Your task to perform on an android device: open app "YouTube Kids" (install if not already installed) and go to login screen Image 0: 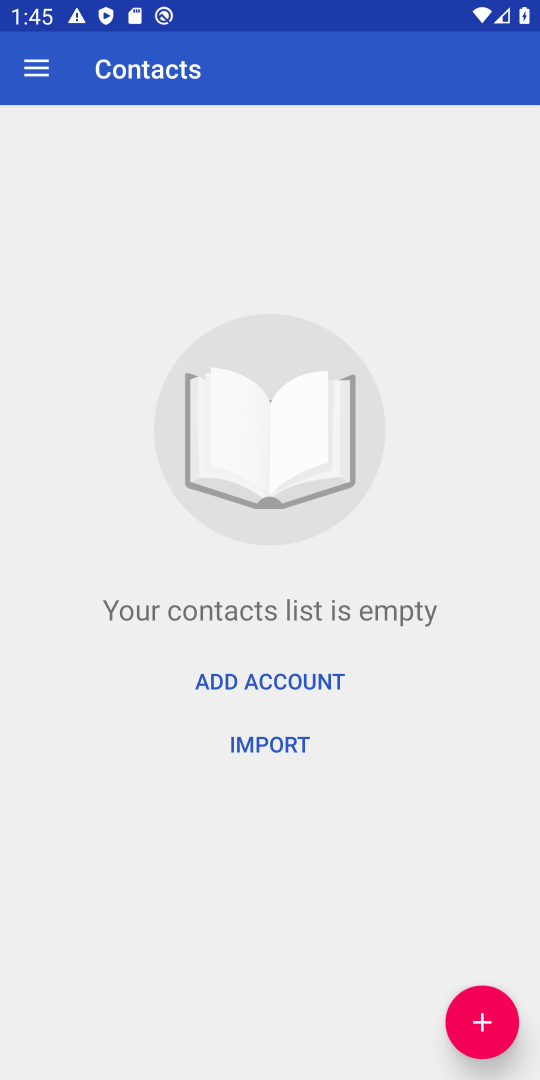
Step 0: press home button
Your task to perform on an android device: open app "YouTube Kids" (install if not already installed) and go to login screen Image 1: 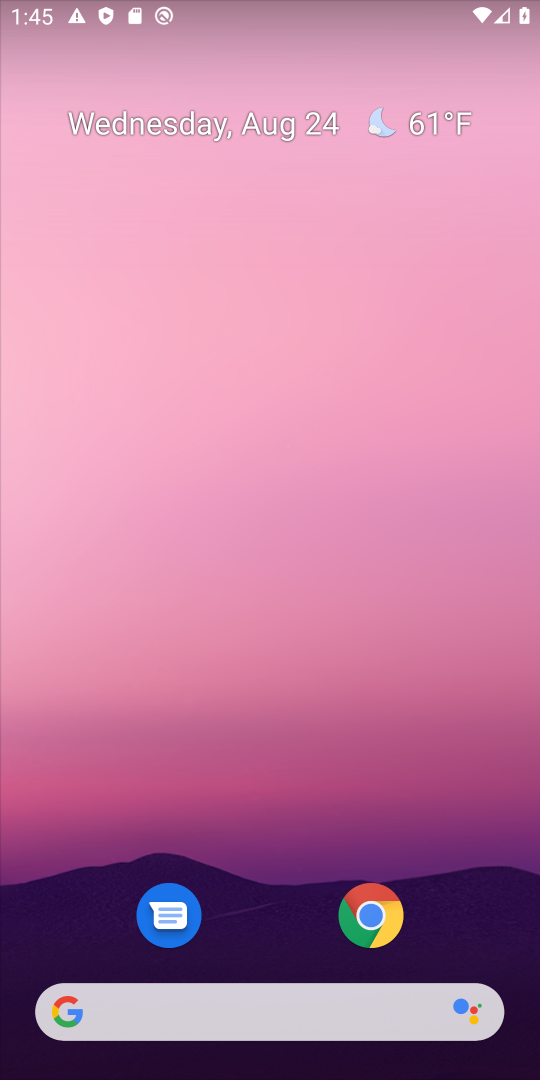
Step 1: drag from (239, 843) to (262, 263)
Your task to perform on an android device: open app "YouTube Kids" (install if not already installed) and go to login screen Image 2: 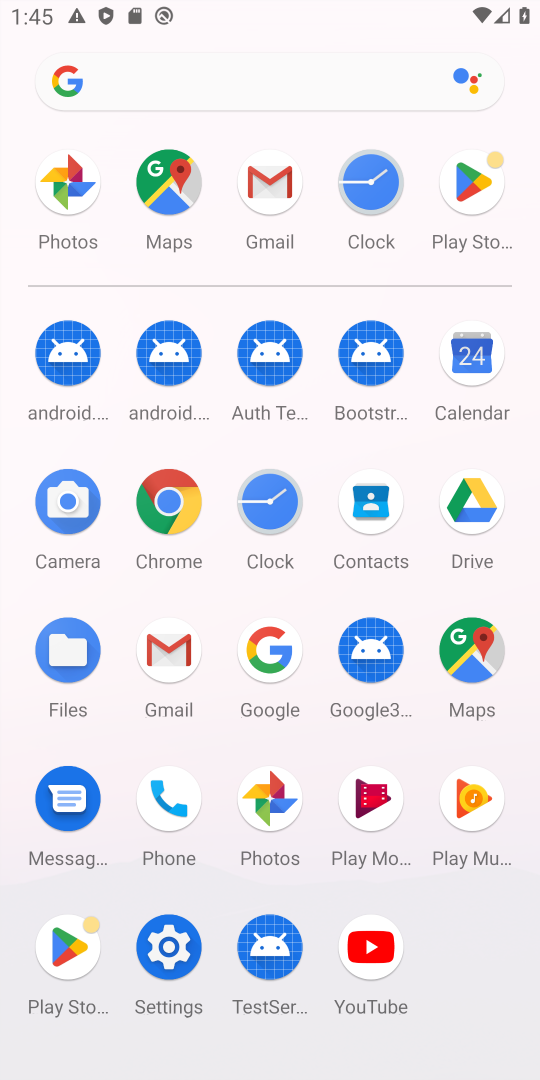
Step 2: click (479, 196)
Your task to perform on an android device: open app "YouTube Kids" (install if not already installed) and go to login screen Image 3: 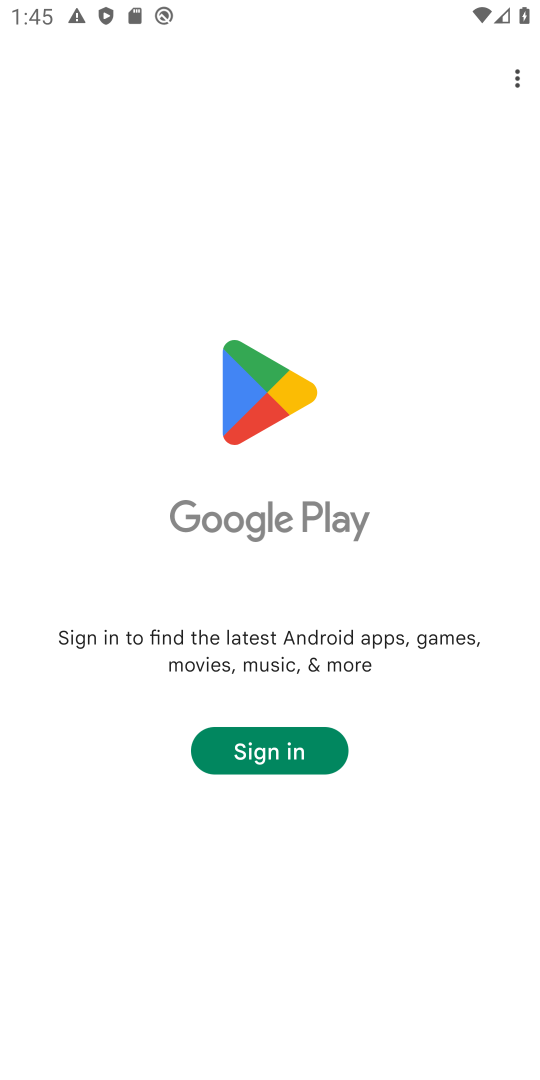
Step 3: task complete